Your task to perform on an android device: turn vacation reply on in the gmail app Image 0: 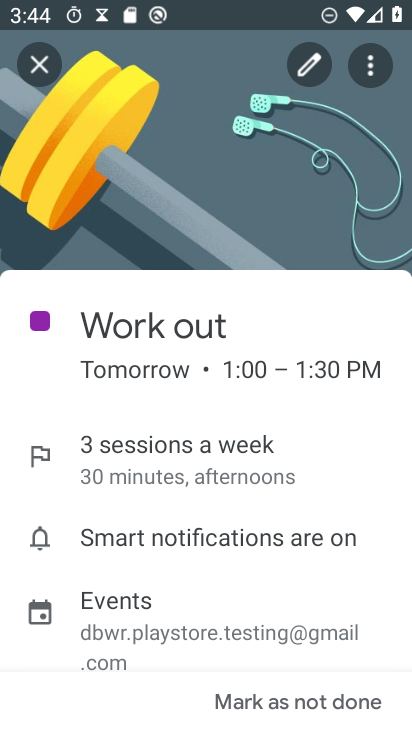
Step 0: press back button
Your task to perform on an android device: turn vacation reply on in the gmail app Image 1: 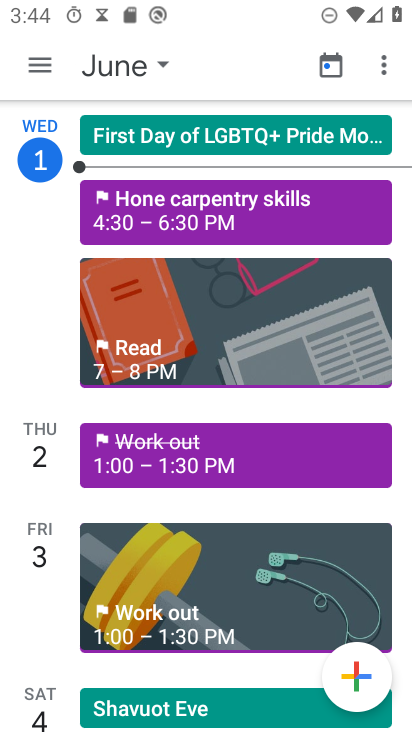
Step 1: press back button
Your task to perform on an android device: turn vacation reply on in the gmail app Image 2: 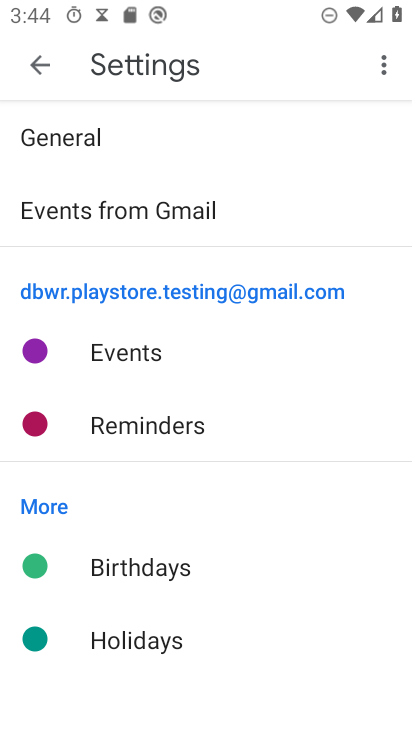
Step 2: click (31, 64)
Your task to perform on an android device: turn vacation reply on in the gmail app Image 3: 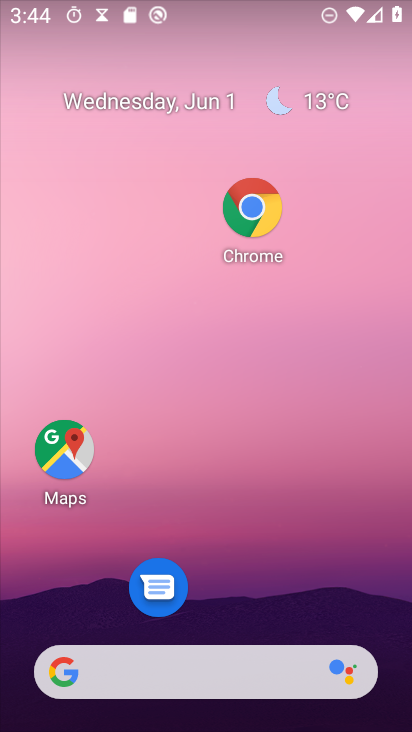
Step 3: drag from (266, 687) to (193, 214)
Your task to perform on an android device: turn vacation reply on in the gmail app Image 4: 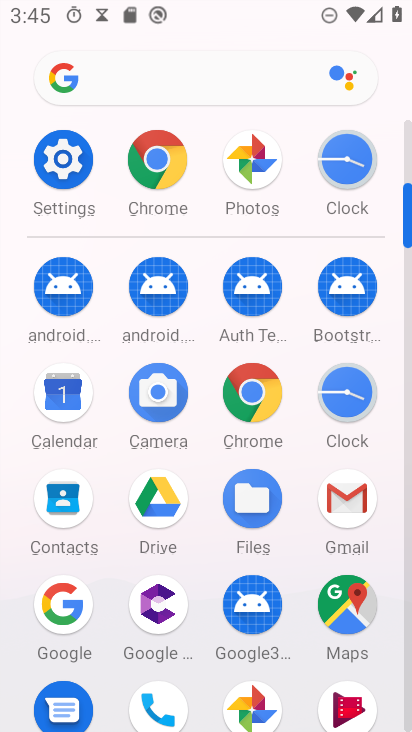
Step 4: click (327, 503)
Your task to perform on an android device: turn vacation reply on in the gmail app Image 5: 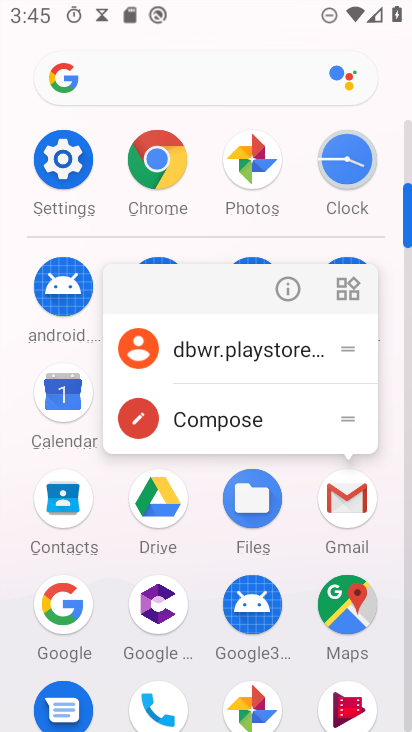
Step 5: click (219, 344)
Your task to perform on an android device: turn vacation reply on in the gmail app Image 6: 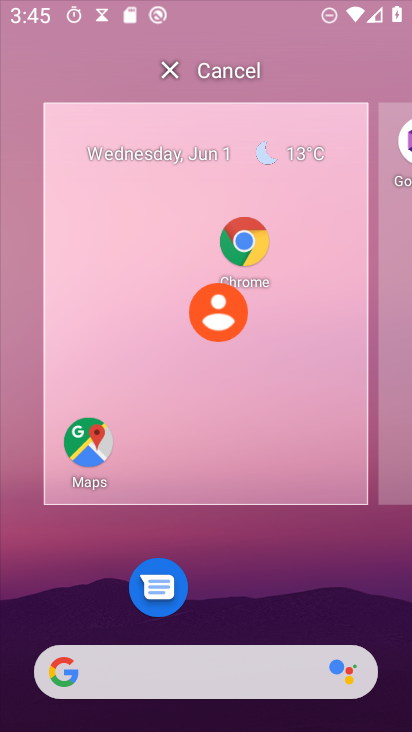
Step 6: click (219, 344)
Your task to perform on an android device: turn vacation reply on in the gmail app Image 7: 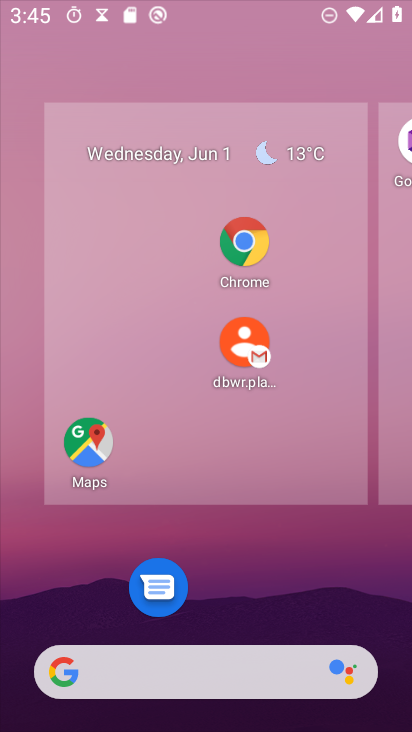
Step 7: click (220, 356)
Your task to perform on an android device: turn vacation reply on in the gmail app Image 8: 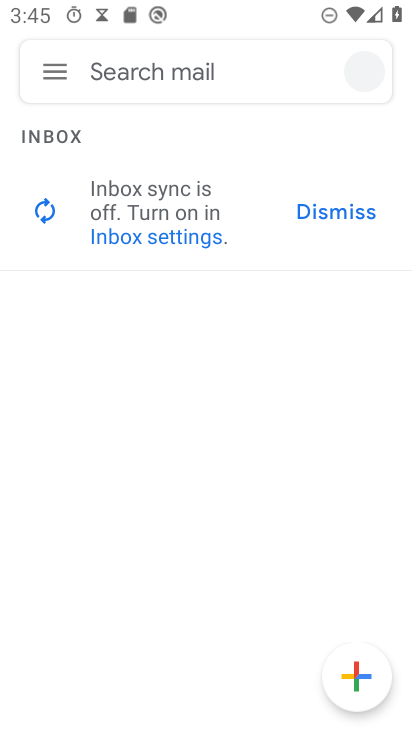
Step 8: drag from (293, 567) to (216, 1)
Your task to perform on an android device: turn vacation reply on in the gmail app Image 9: 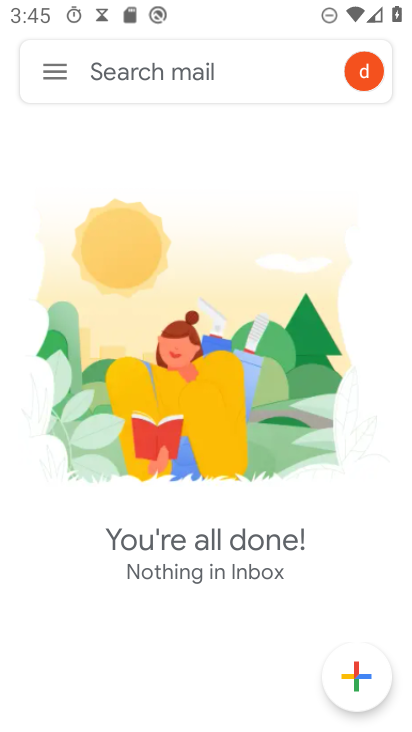
Step 9: click (55, 86)
Your task to perform on an android device: turn vacation reply on in the gmail app Image 10: 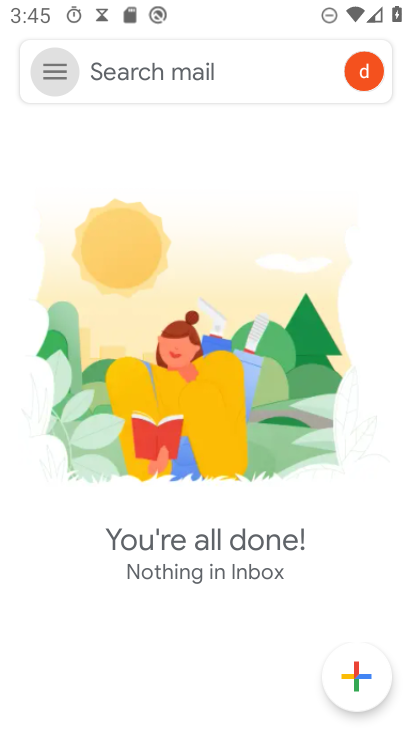
Step 10: click (51, 50)
Your task to perform on an android device: turn vacation reply on in the gmail app Image 11: 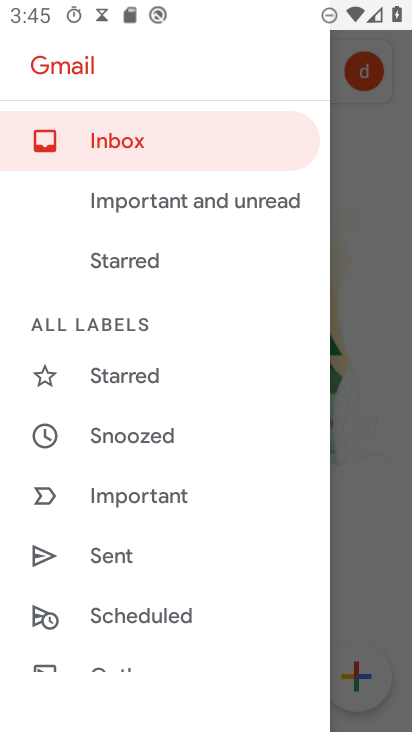
Step 11: drag from (179, 485) to (139, 112)
Your task to perform on an android device: turn vacation reply on in the gmail app Image 12: 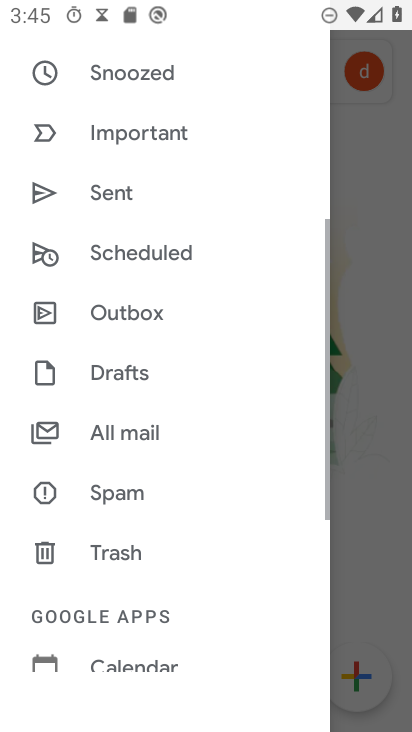
Step 12: drag from (179, 458) to (147, 161)
Your task to perform on an android device: turn vacation reply on in the gmail app Image 13: 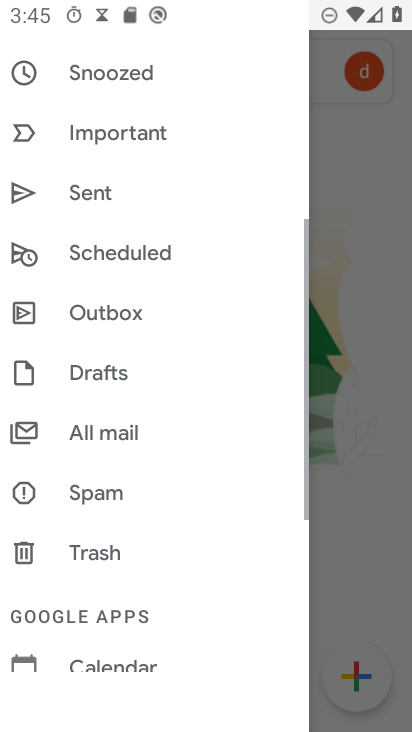
Step 13: drag from (149, 424) to (153, 223)
Your task to perform on an android device: turn vacation reply on in the gmail app Image 14: 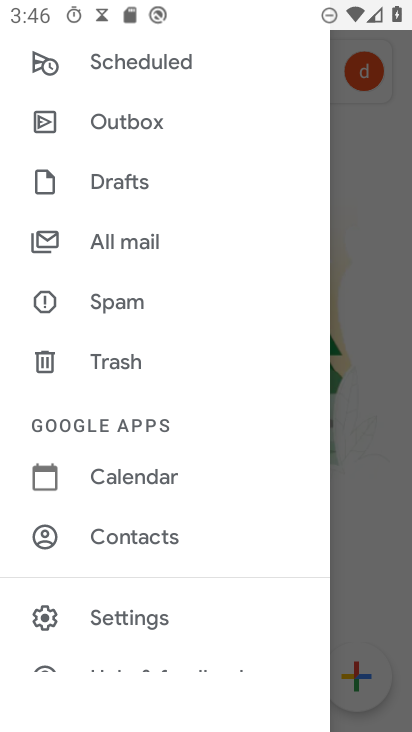
Step 14: click (125, 621)
Your task to perform on an android device: turn vacation reply on in the gmail app Image 15: 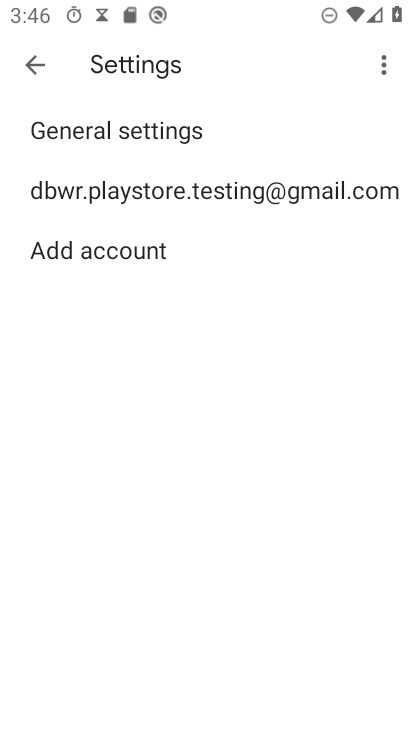
Step 15: click (153, 178)
Your task to perform on an android device: turn vacation reply on in the gmail app Image 16: 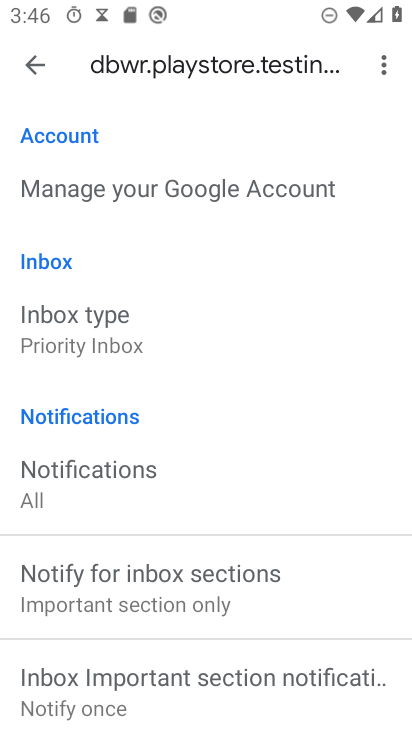
Step 16: drag from (111, 565) to (72, 276)
Your task to perform on an android device: turn vacation reply on in the gmail app Image 17: 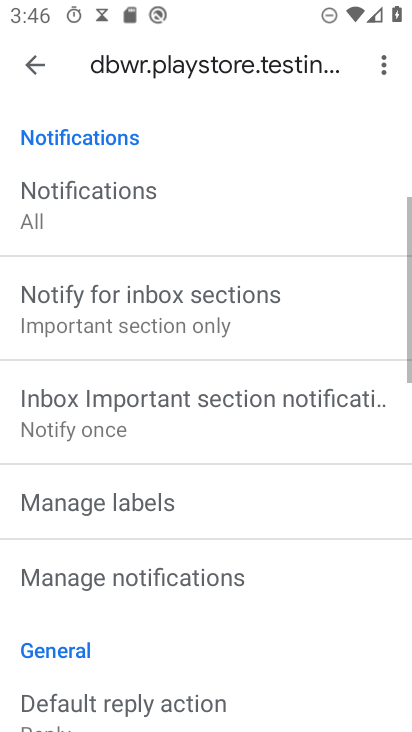
Step 17: drag from (86, 471) to (72, 246)
Your task to perform on an android device: turn vacation reply on in the gmail app Image 18: 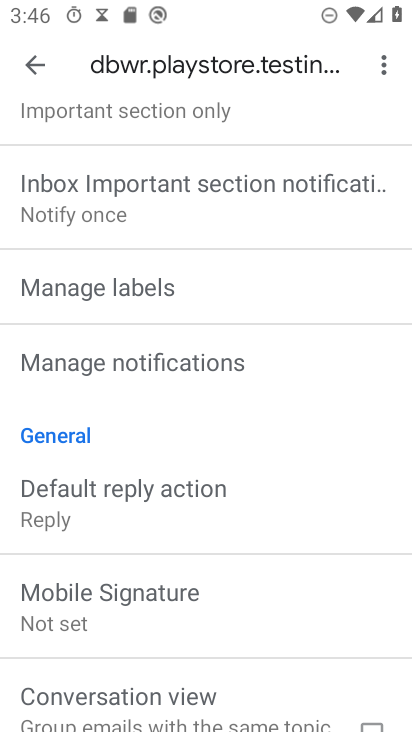
Step 18: drag from (147, 257) to (168, 406)
Your task to perform on an android device: turn vacation reply on in the gmail app Image 19: 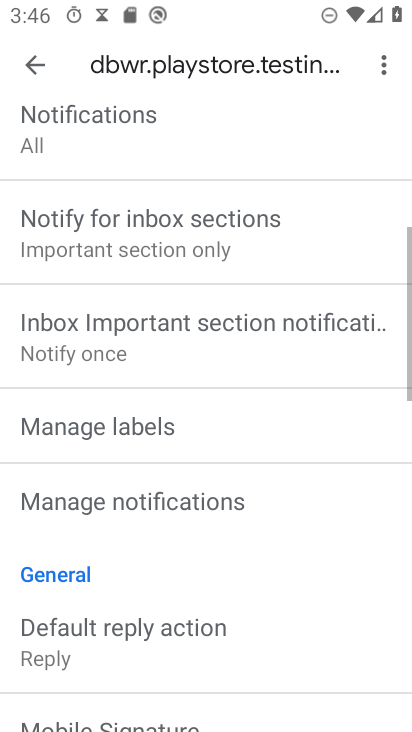
Step 19: drag from (122, 233) to (140, 411)
Your task to perform on an android device: turn vacation reply on in the gmail app Image 20: 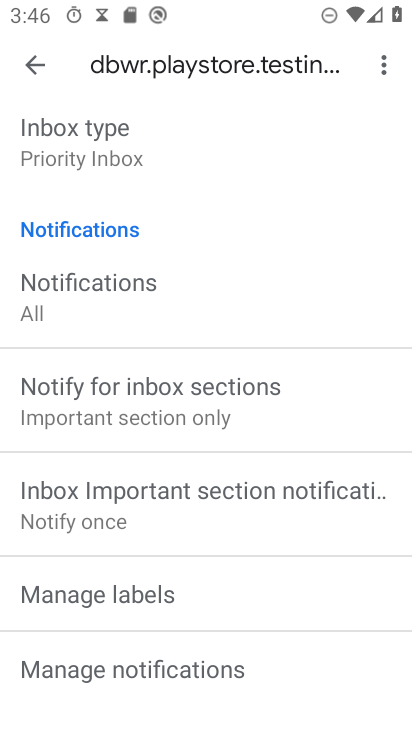
Step 20: click (92, 144)
Your task to perform on an android device: turn vacation reply on in the gmail app Image 21: 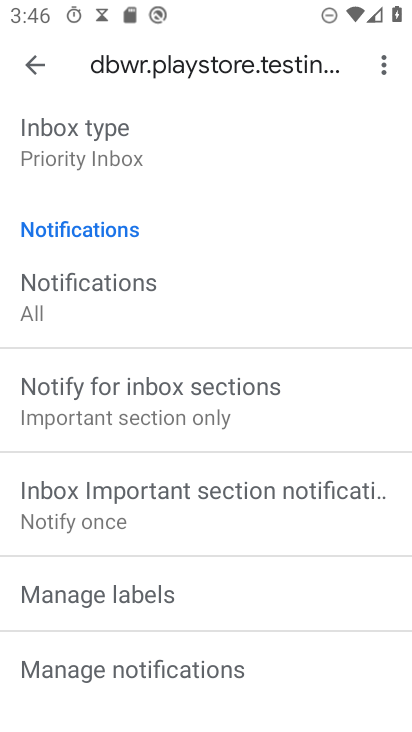
Step 21: drag from (129, 208) to (132, 150)
Your task to perform on an android device: turn vacation reply on in the gmail app Image 22: 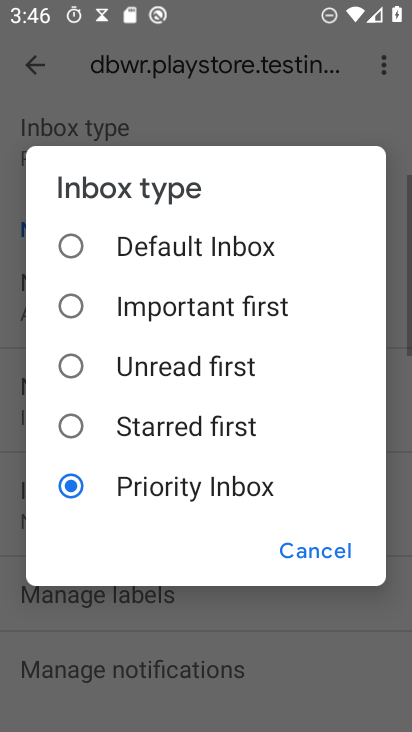
Step 22: drag from (164, 504) to (164, 184)
Your task to perform on an android device: turn vacation reply on in the gmail app Image 23: 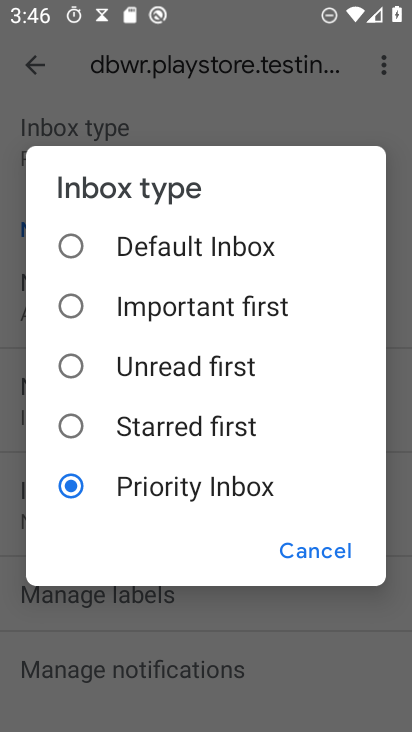
Step 23: click (302, 546)
Your task to perform on an android device: turn vacation reply on in the gmail app Image 24: 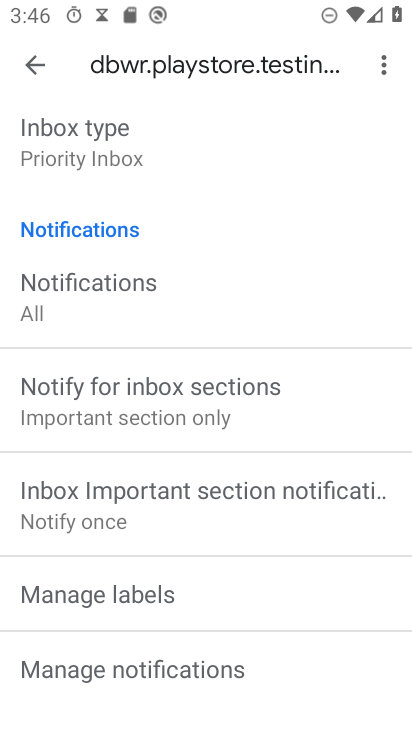
Step 24: drag from (192, 505) to (140, 240)
Your task to perform on an android device: turn vacation reply on in the gmail app Image 25: 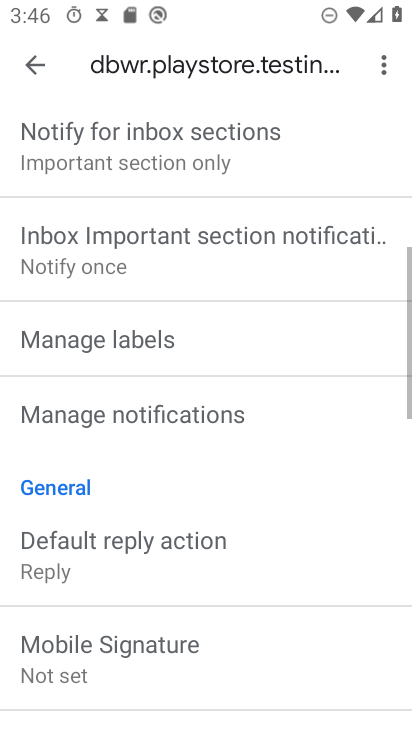
Step 25: drag from (171, 432) to (153, 289)
Your task to perform on an android device: turn vacation reply on in the gmail app Image 26: 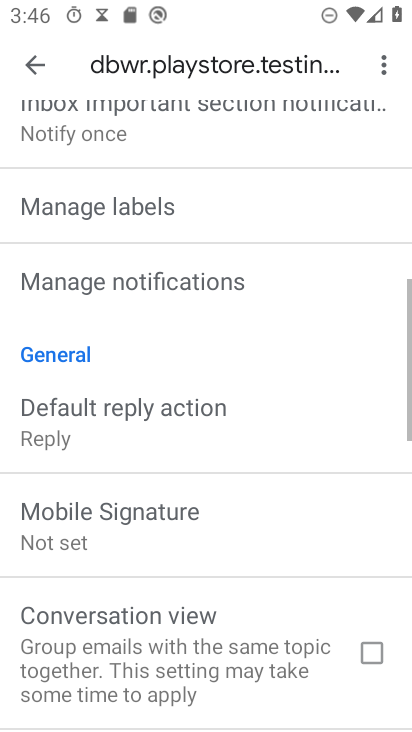
Step 26: drag from (157, 607) to (116, 211)
Your task to perform on an android device: turn vacation reply on in the gmail app Image 27: 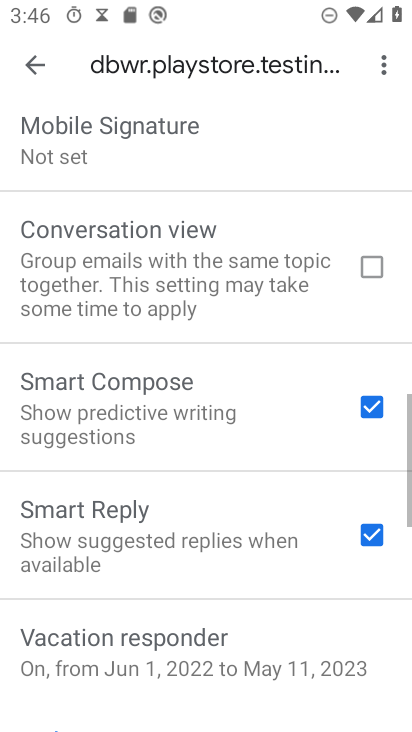
Step 27: drag from (177, 474) to (177, 141)
Your task to perform on an android device: turn vacation reply on in the gmail app Image 28: 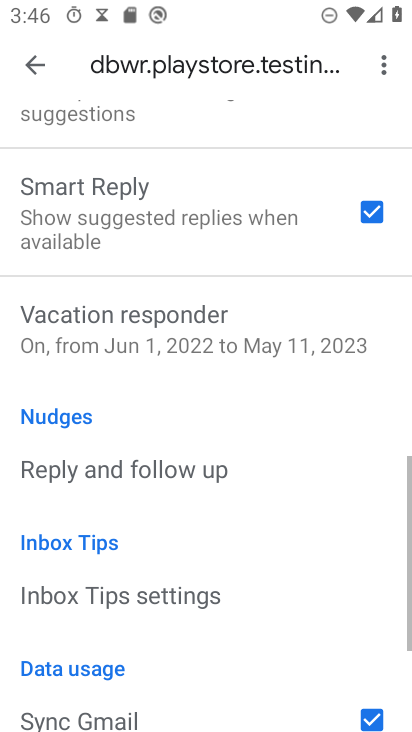
Step 28: drag from (210, 417) to (213, 212)
Your task to perform on an android device: turn vacation reply on in the gmail app Image 29: 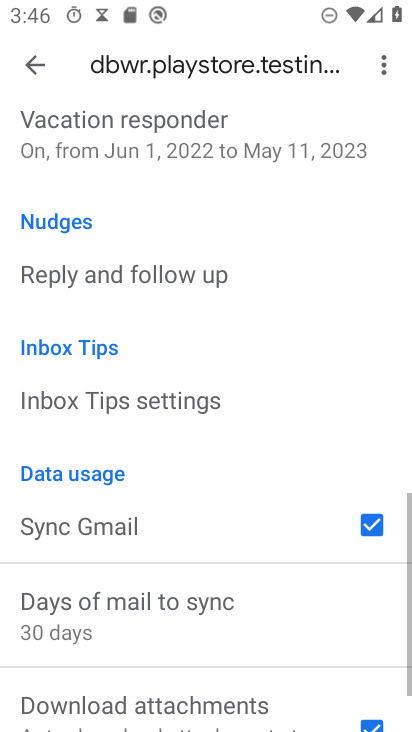
Step 29: drag from (201, 556) to (165, 149)
Your task to perform on an android device: turn vacation reply on in the gmail app Image 30: 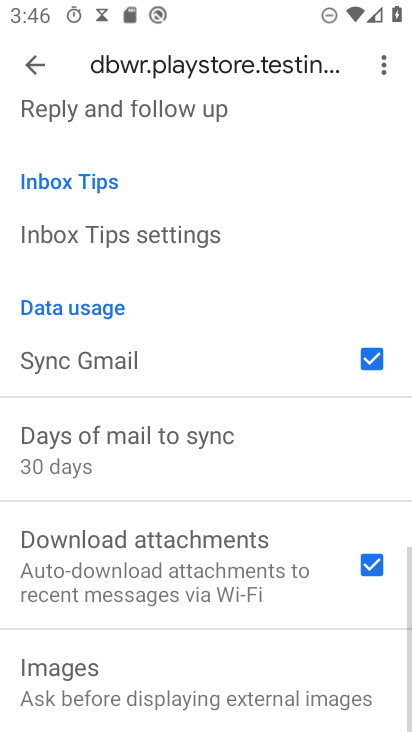
Step 30: drag from (197, 578) to (184, 244)
Your task to perform on an android device: turn vacation reply on in the gmail app Image 31: 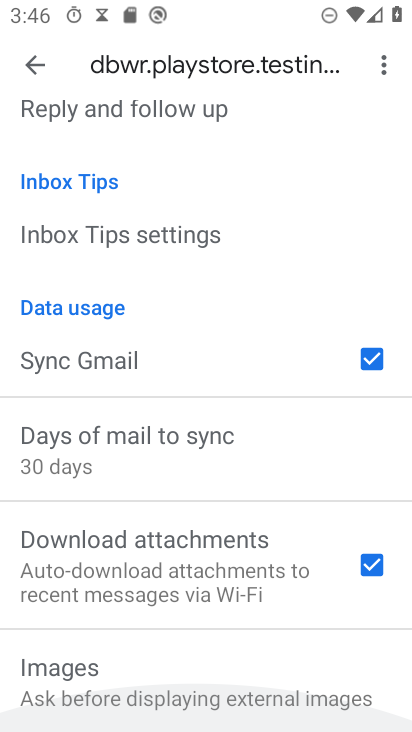
Step 31: drag from (226, 421) to (204, 261)
Your task to perform on an android device: turn vacation reply on in the gmail app Image 32: 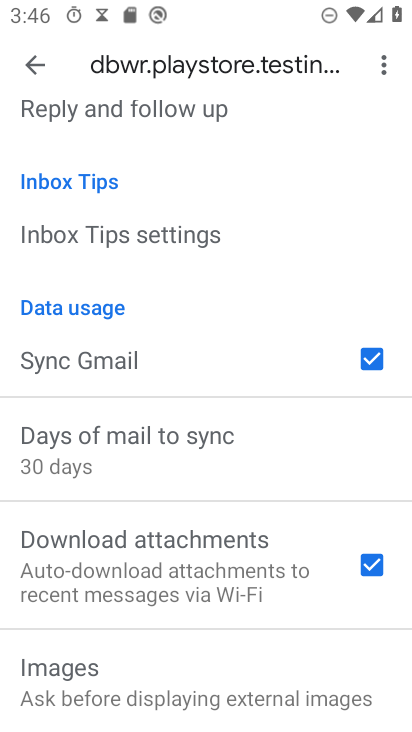
Step 32: drag from (204, 554) to (183, 134)
Your task to perform on an android device: turn vacation reply on in the gmail app Image 33: 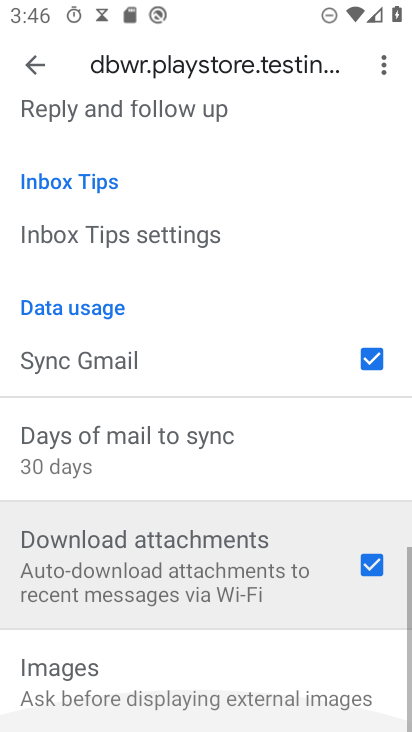
Step 33: drag from (232, 407) to (215, 221)
Your task to perform on an android device: turn vacation reply on in the gmail app Image 34: 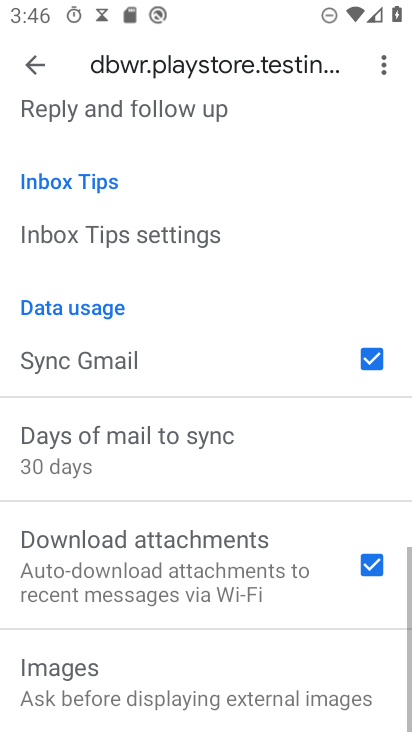
Step 34: drag from (216, 537) to (200, 253)
Your task to perform on an android device: turn vacation reply on in the gmail app Image 35: 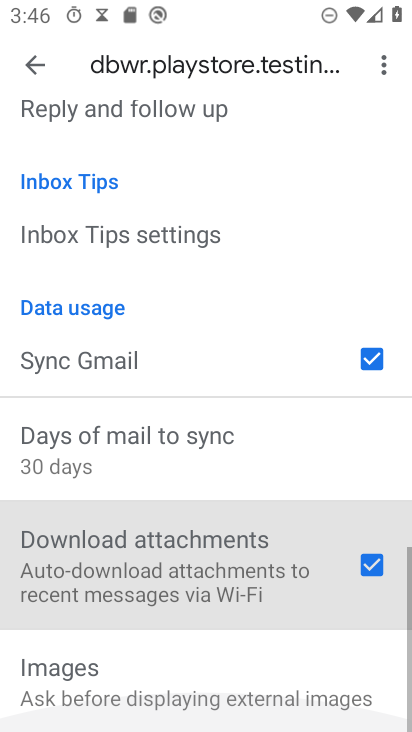
Step 35: drag from (196, 563) to (134, 130)
Your task to perform on an android device: turn vacation reply on in the gmail app Image 36: 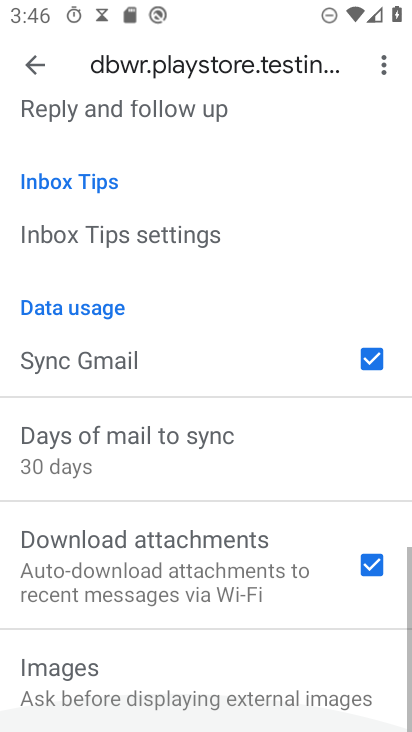
Step 36: drag from (162, 490) to (132, 189)
Your task to perform on an android device: turn vacation reply on in the gmail app Image 37: 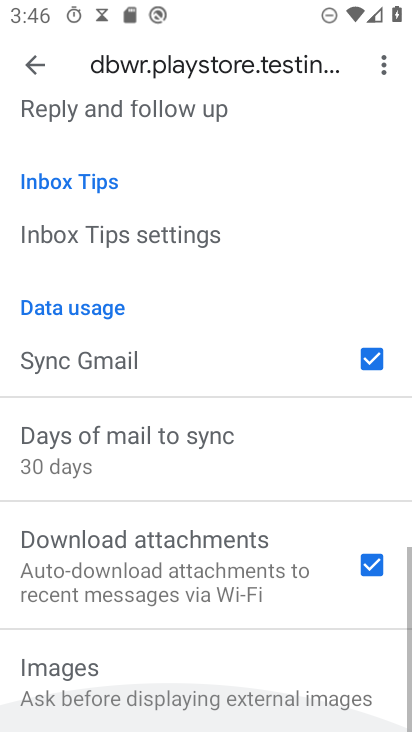
Step 37: drag from (200, 597) to (201, 244)
Your task to perform on an android device: turn vacation reply on in the gmail app Image 38: 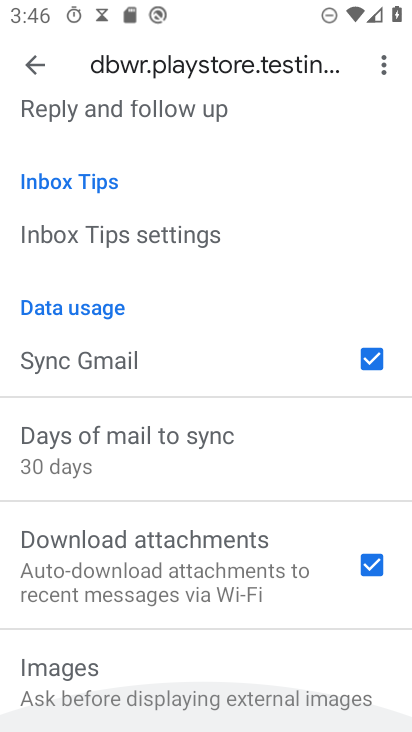
Step 38: drag from (258, 598) to (209, 302)
Your task to perform on an android device: turn vacation reply on in the gmail app Image 39: 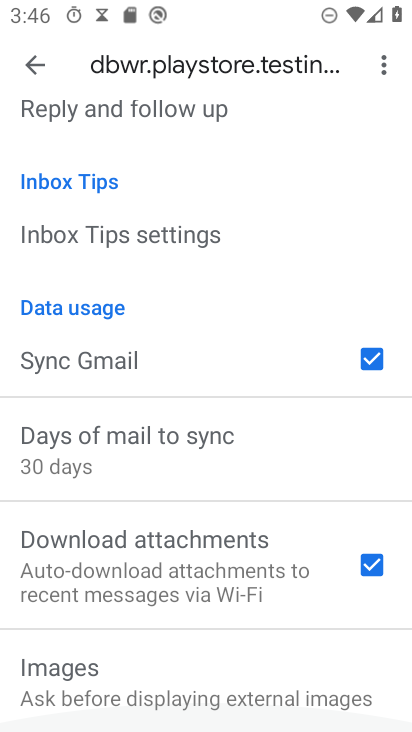
Step 39: drag from (173, 238) to (173, 550)
Your task to perform on an android device: turn vacation reply on in the gmail app Image 40: 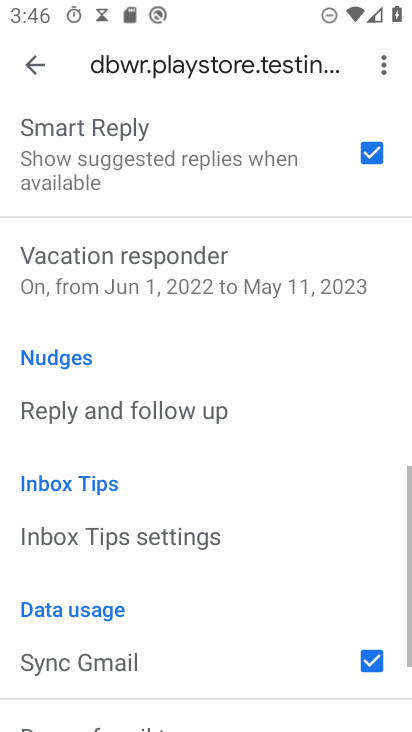
Step 40: drag from (146, 357) to (173, 588)
Your task to perform on an android device: turn vacation reply on in the gmail app Image 41: 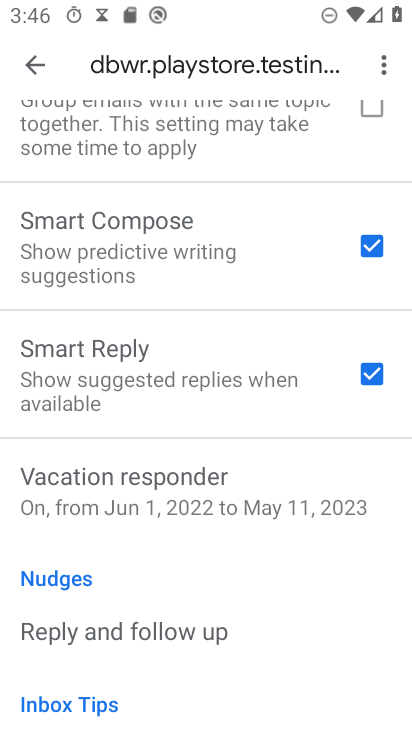
Step 41: click (197, 478)
Your task to perform on an android device: turn vacation reply on in the gmail app Image 42: 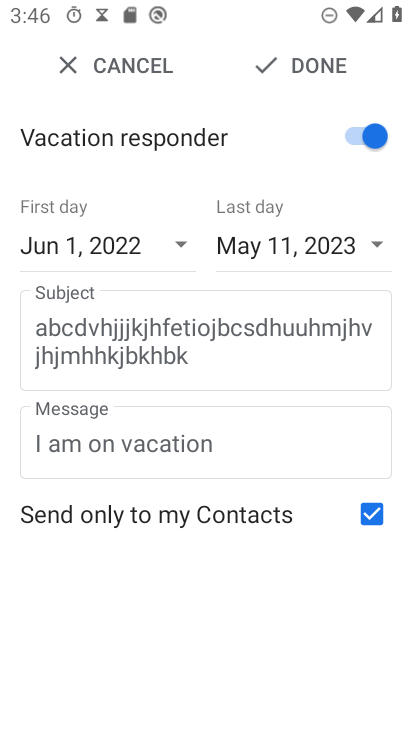
Step 42: task complete